Your task to perform on an android device: Search for Mexican restaurants on Maps Image 0: 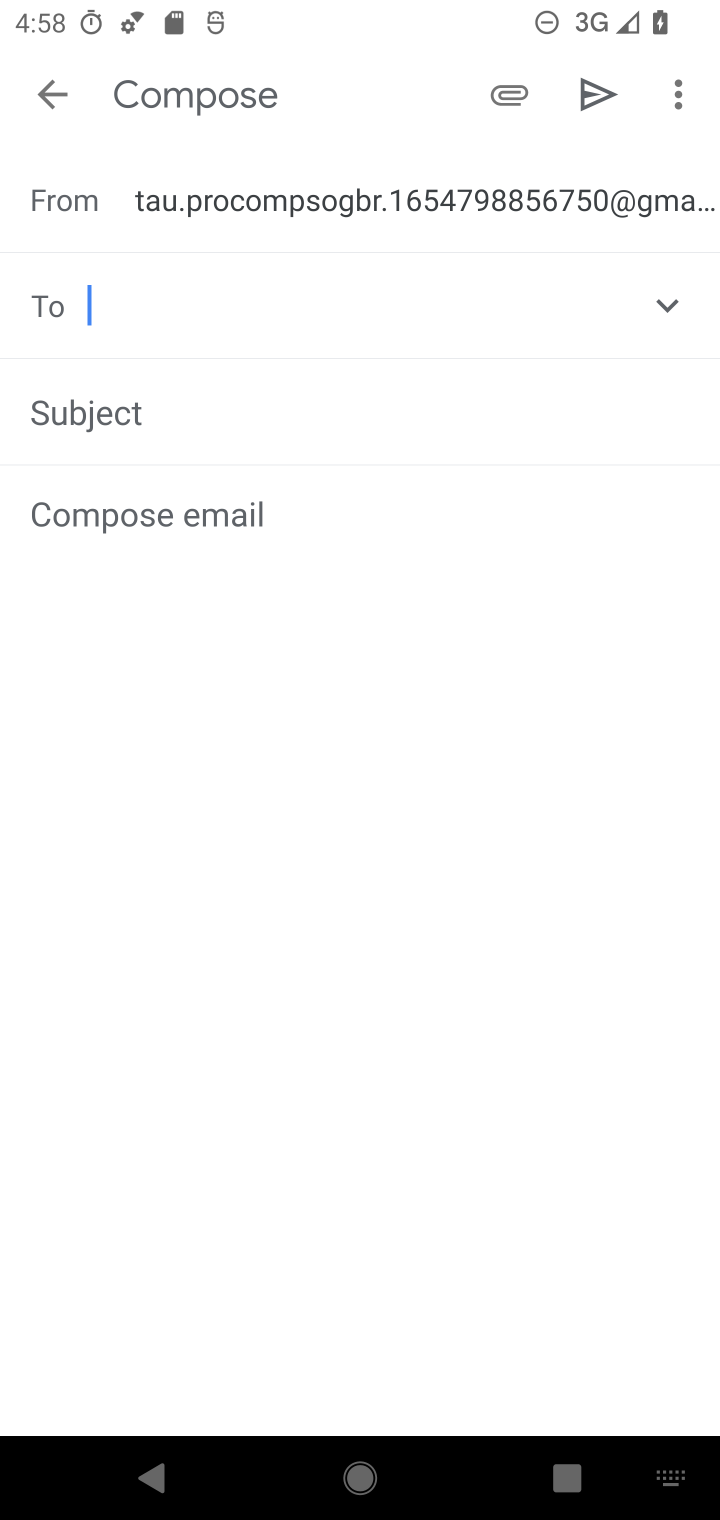
Step 0: press home button
Your task to perform on an android device: Search for Mexican restaurants on Maps Image 1: 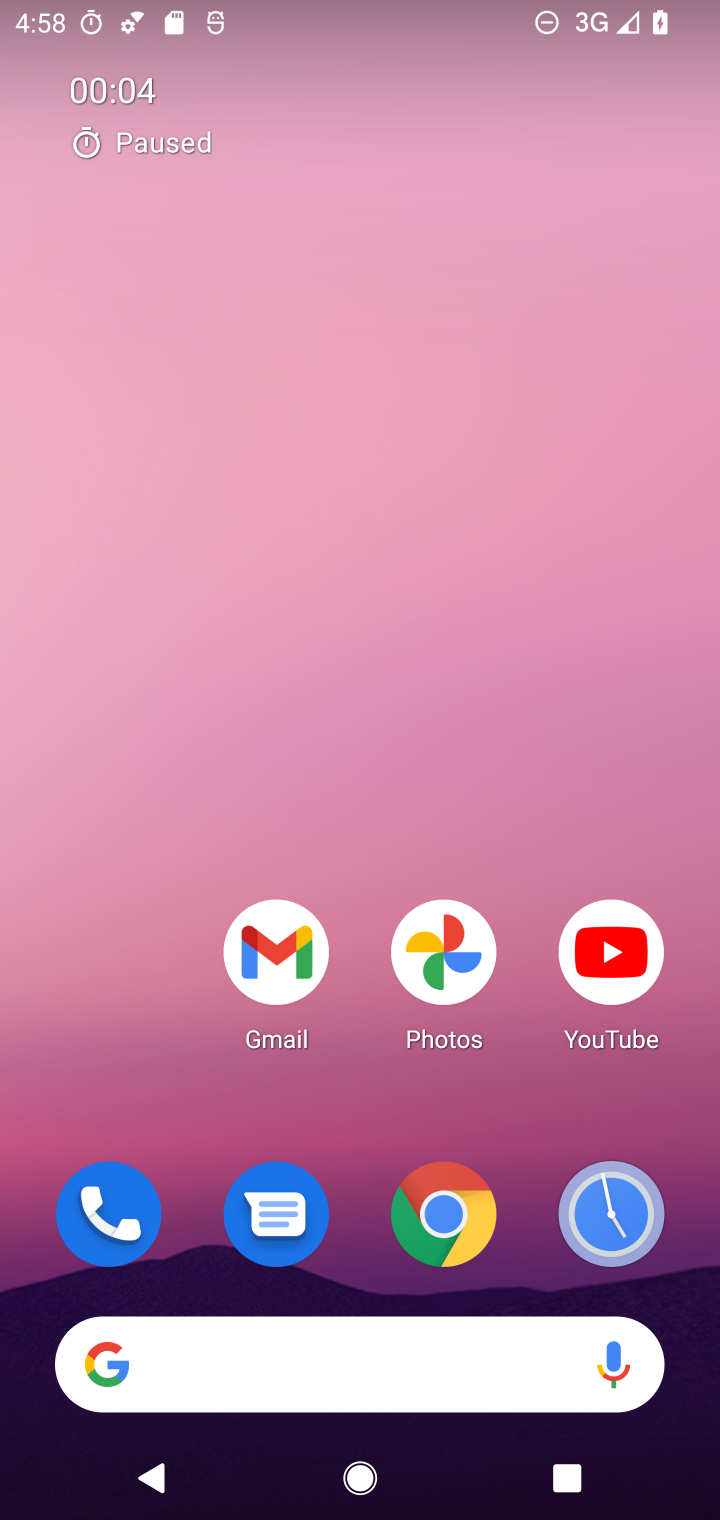
Step 1: drag from (336, 1100) to (299, 23)
Your task to perform on an android device: Search for Mexican restaurants on Maps Image 2: 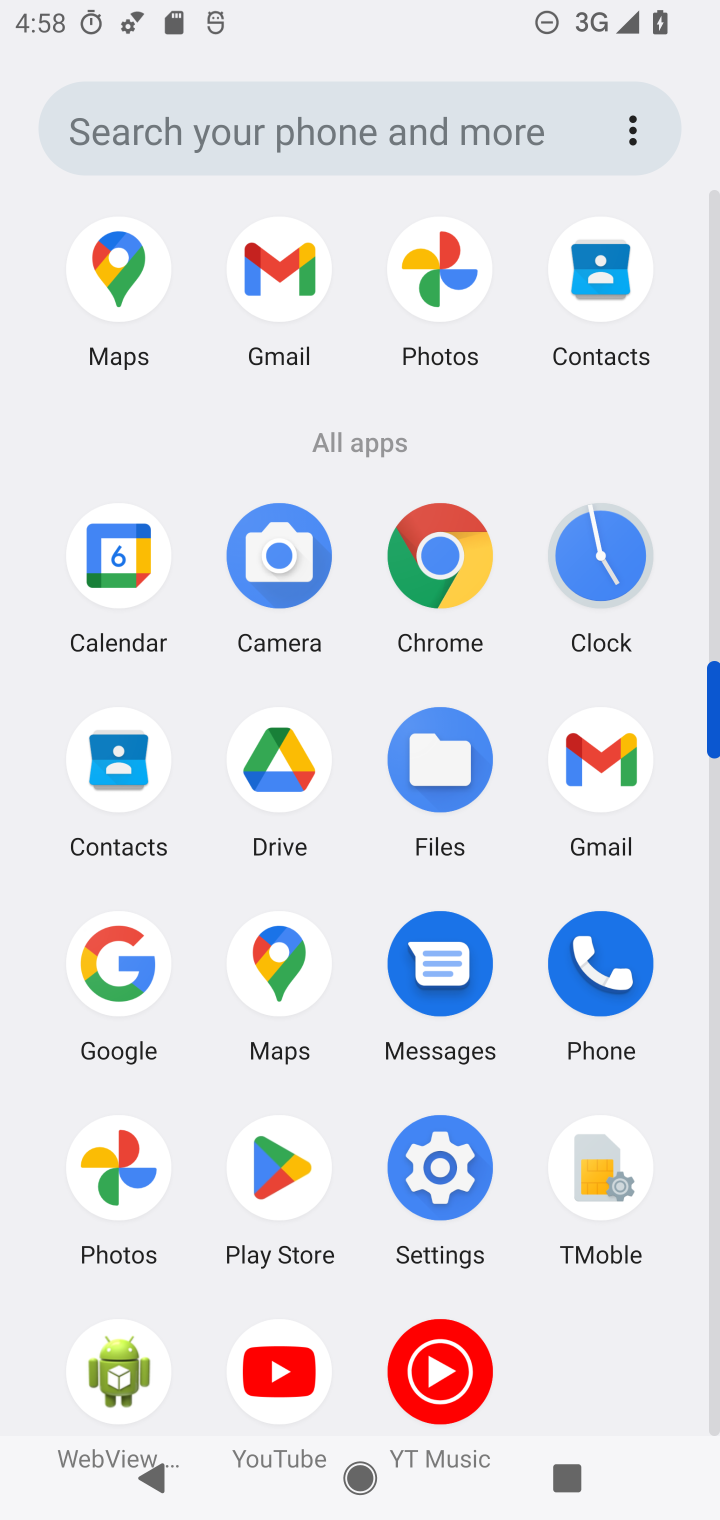
Step 2: click (279, 992)
Your task to perform on an android device: Search for Mexican restaurants on Maps Image 3: 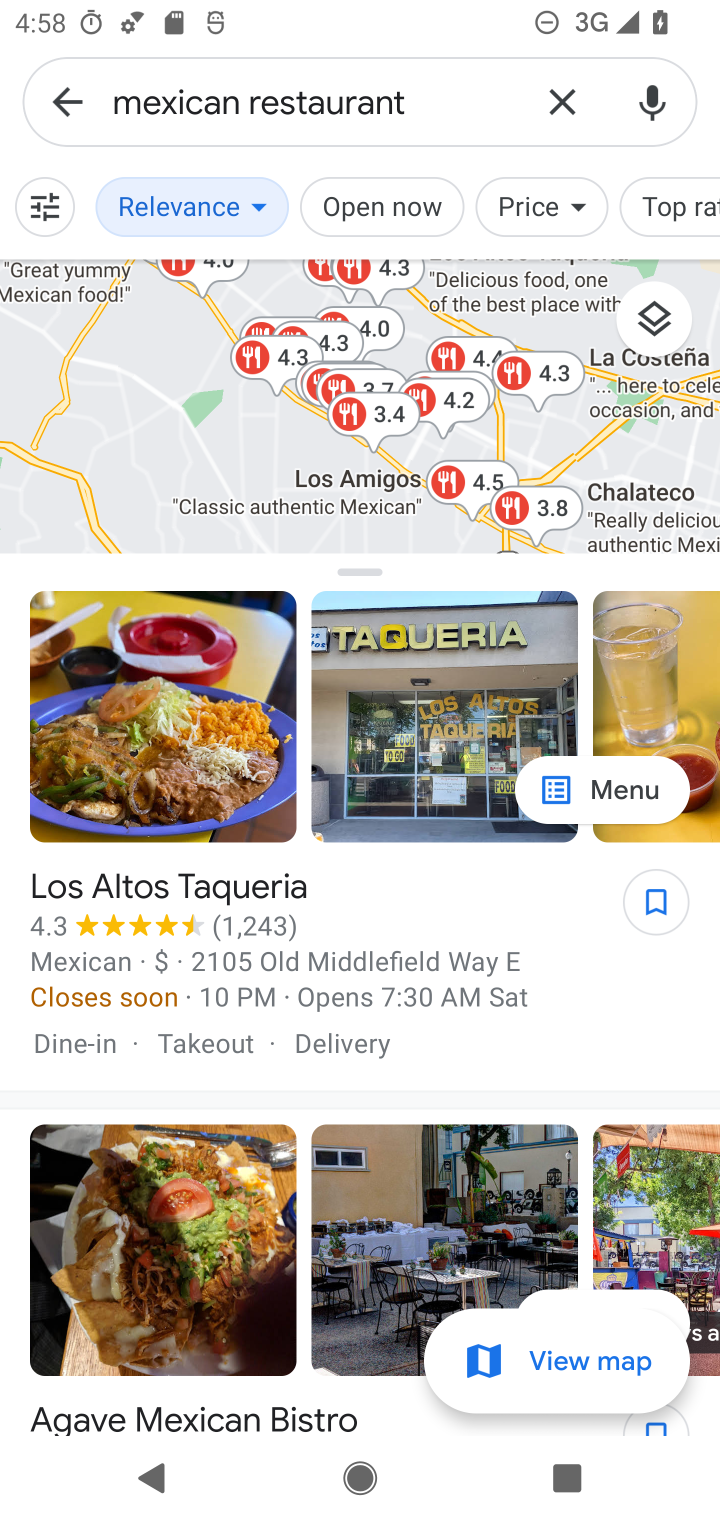
Step 3: click (558, 92)
Your task to perform on an android device: Search for Mexican restaurants on Maps Image 4: 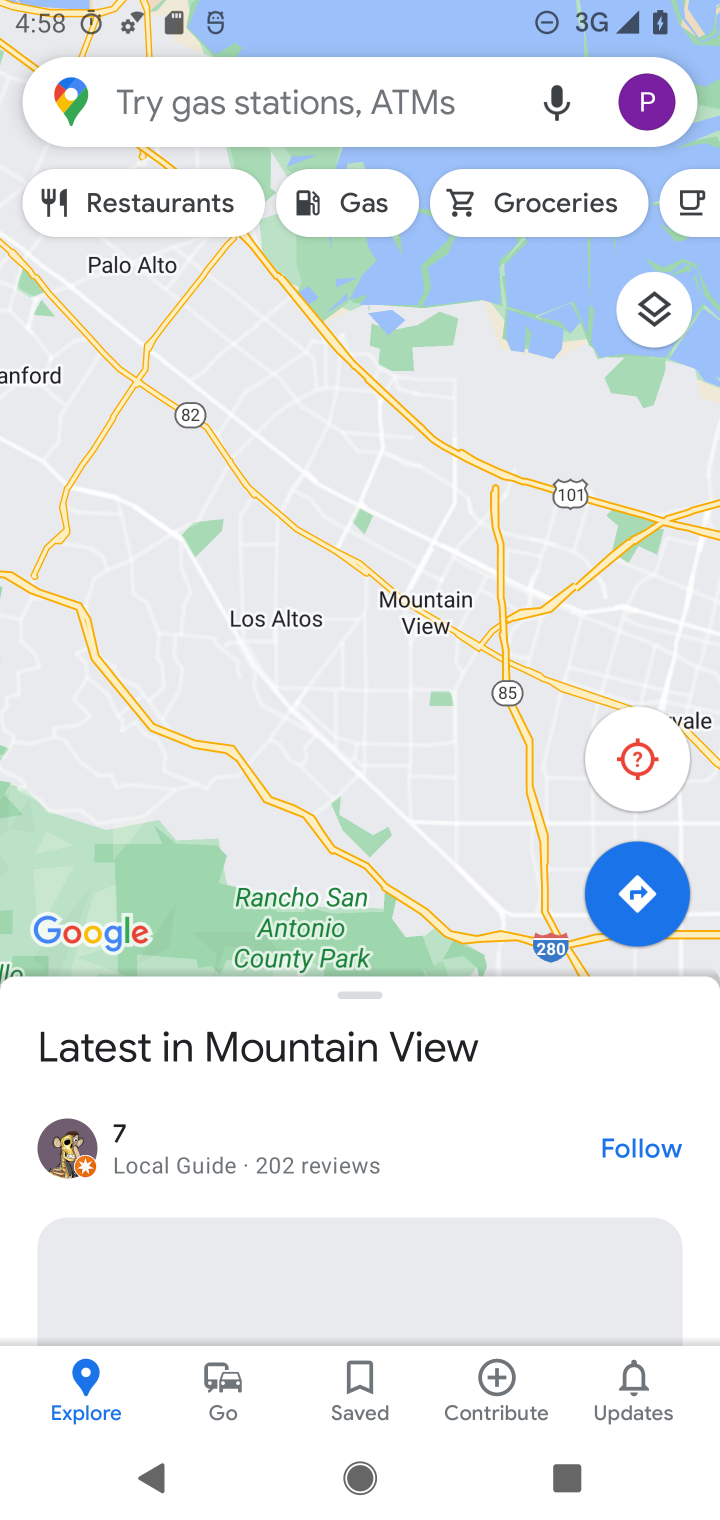
Step 4: click (379, 112)
Your task to perform on an android device: Search for Mexican restaurants on Maps Image 5: 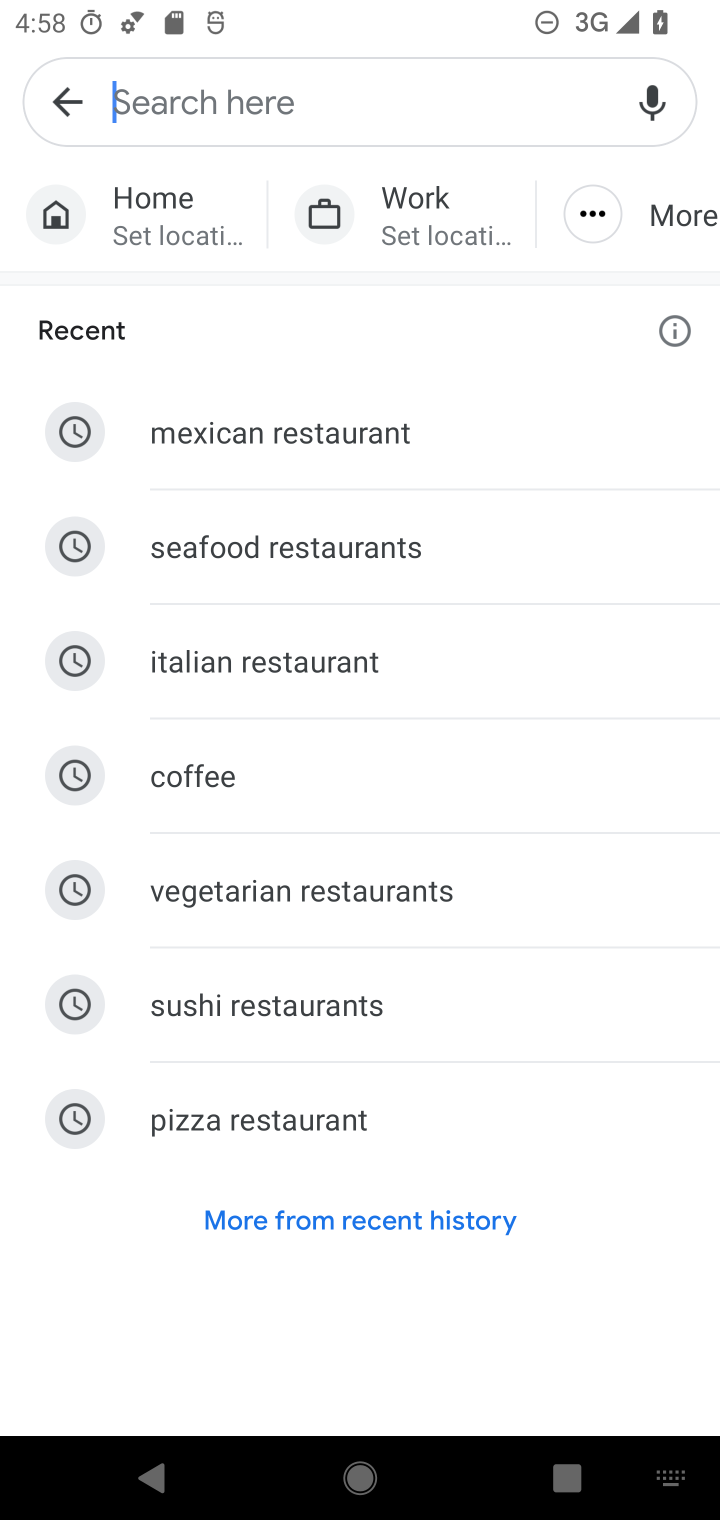
Step 5: type "Mexican restaurants"
Your task to perform on an android device: Search for Mexican restaurants on Maps Image 6: 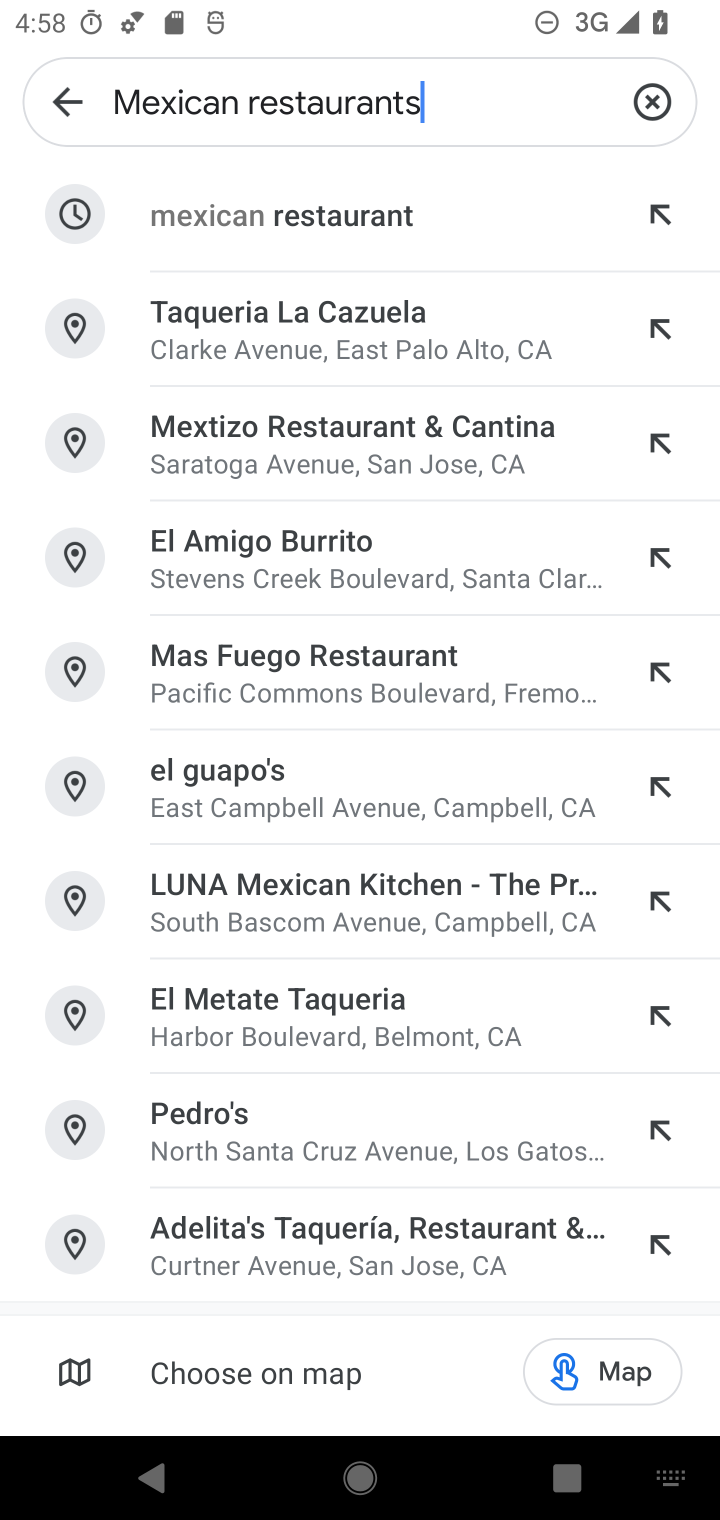
Step 6: click (351, 204)
Your task to perform on an android device: Search for Mexican restaurants on Maps Image 7: 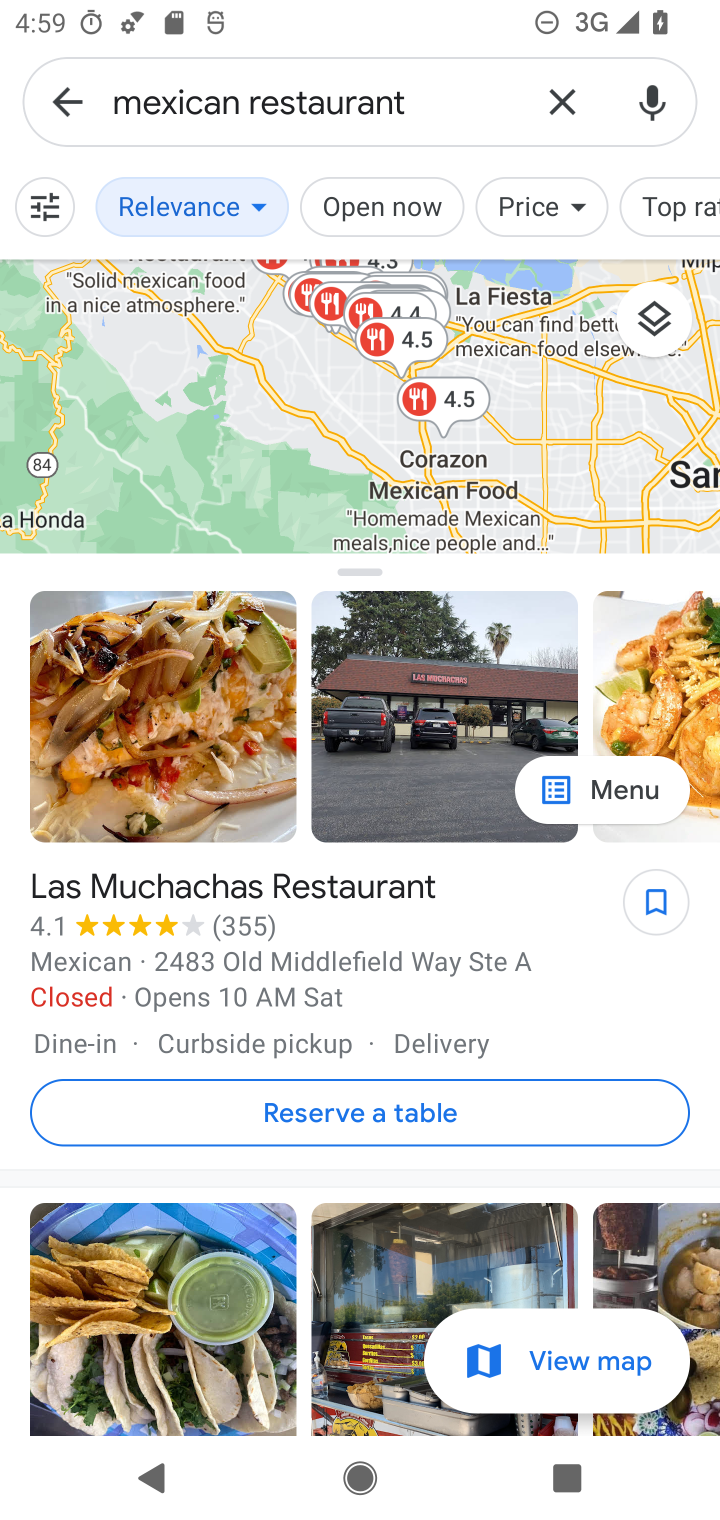
Step 7: task complete